Your task to perform on an android device: choose inbox layout in the gmail app Image 0: 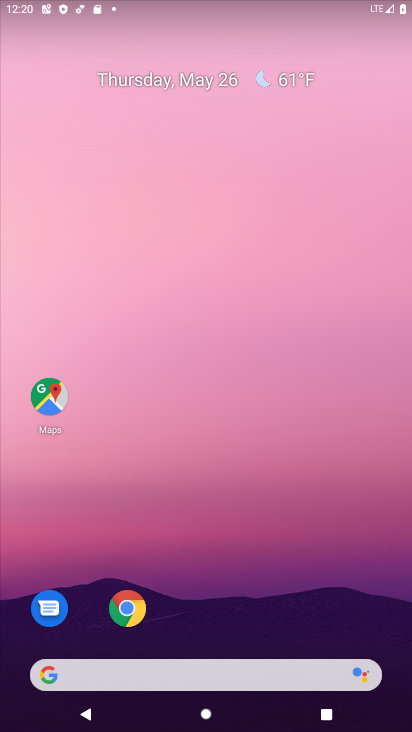
Step 0: drag from (365, 603) to (313, 88)
Your task to perform on an android device: choose inbox layout in the gmail app Image 1: 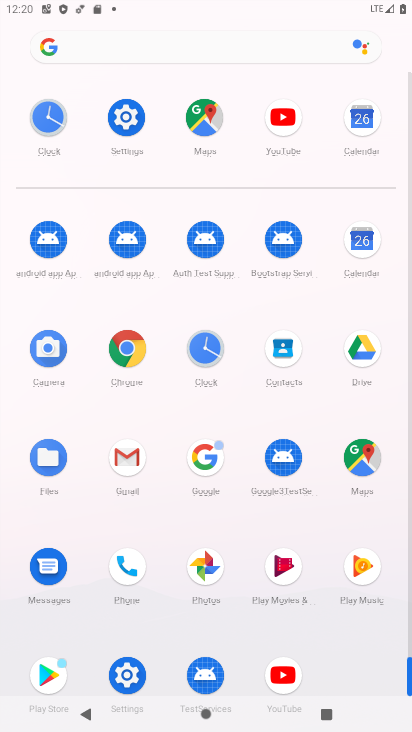
Step 1: click (123, 457)
Your task to perform on an android device: choose inbox layout in the gmail app Image 2: 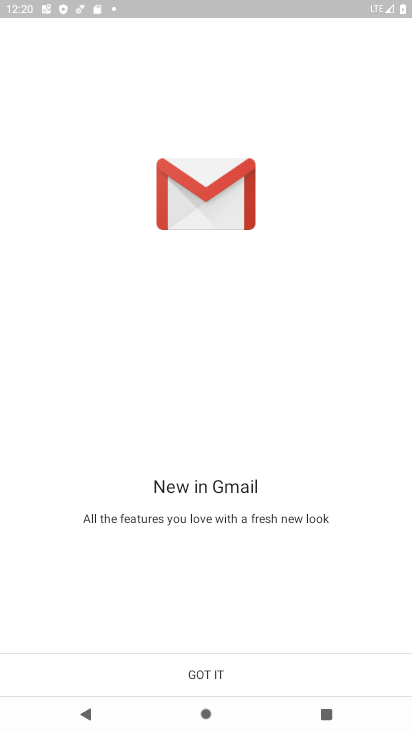
Step 2: click (213, 665)
Your task to perform on an android device: choose inbox layout in the gmail app Image 3: 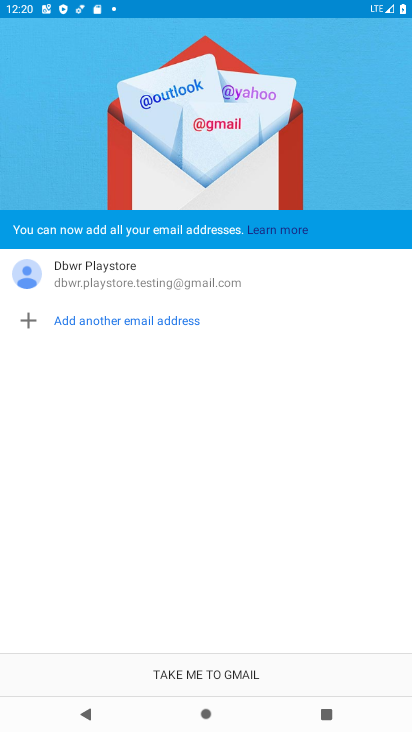
Step 3: click (220, 671)
Your task to perform on an android device: choose inbox layout in the gmail app Image 4: 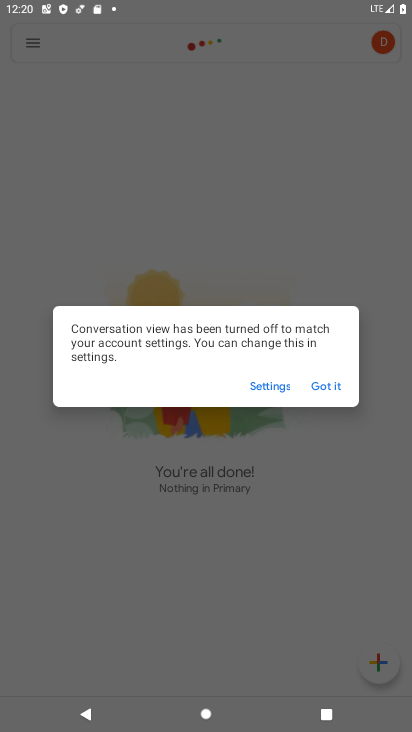
Step 4: click (327, 385)
Your task to perform on an android device: choose inbox layout in the gmail app Image 5: 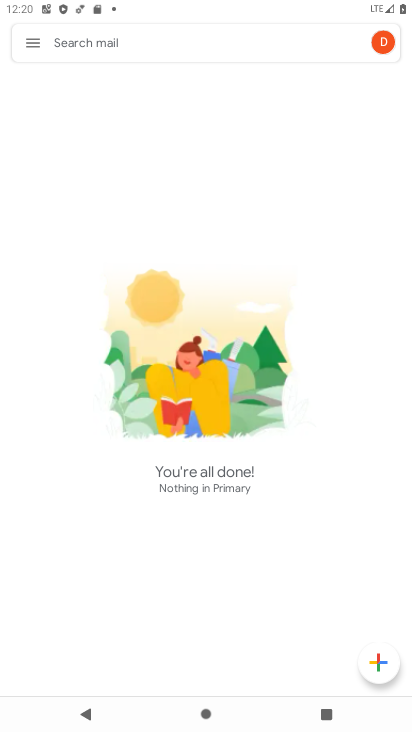
Step 5: click (33, 42)
Your task to perform on an android device: choose inbox layout in the gmail app Image 6: 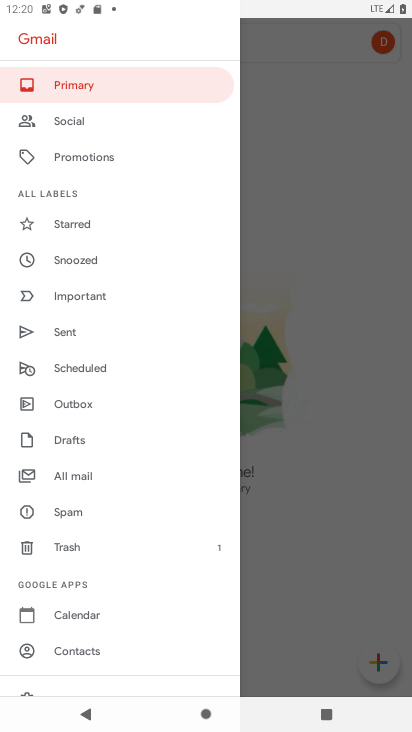
Step 6: drag from (117, 611) to (137, 242)
Your task to perform on an android device: choose inbox layout in the gmail app Image 7: 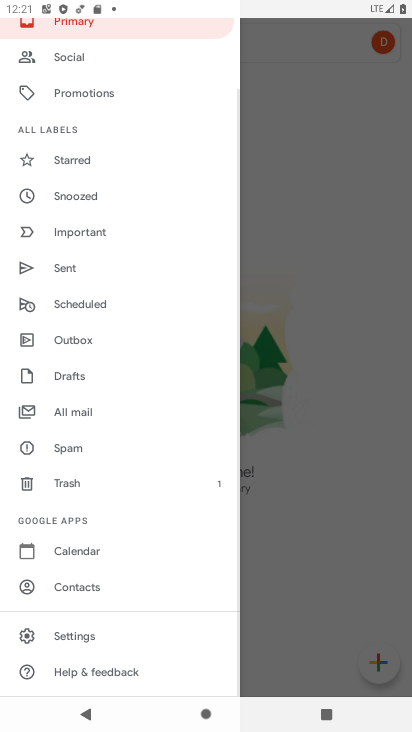
Step 7: click (74, 629)
Your task to perform on an android device: choose inbox layout in the gmail app Image 8: 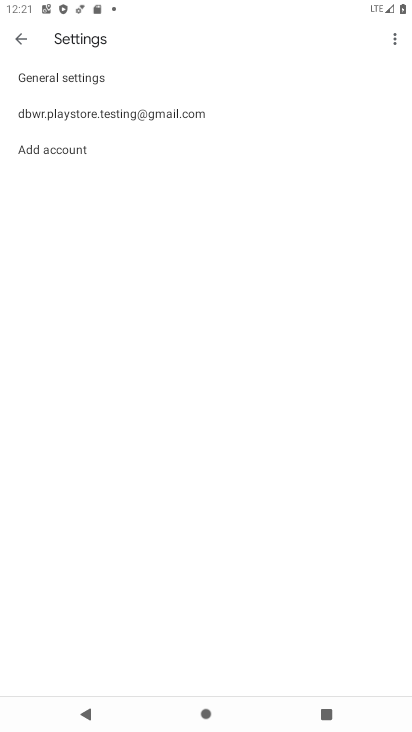
Step 8: click (122, 114)
Your task to perform on an android device: choose inbox layout in the gmail app Image 9: 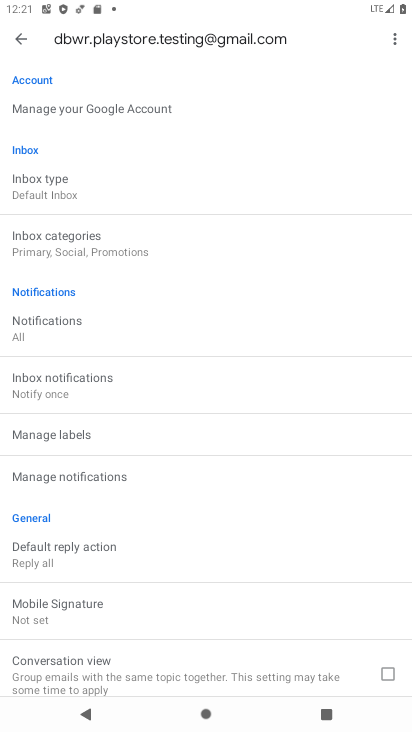
Step 9: click (31, 182)
Your task to perform on an android device: choose inbox layout in the gmail app Image 10: 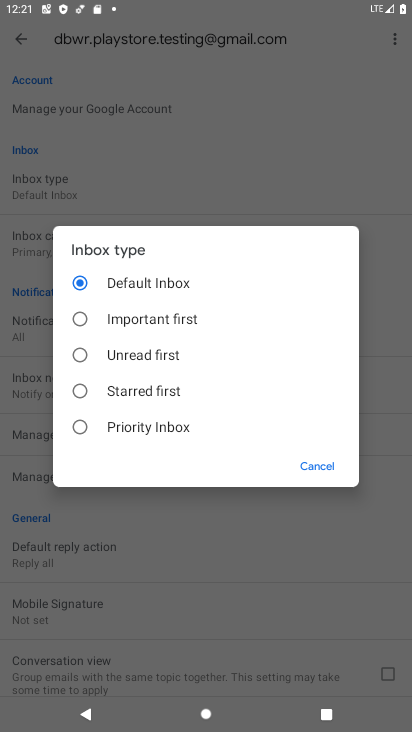
Step 10: click (75, 314)
Your task to perform on an android device: choose inbox layout in the gmail app Image 11: 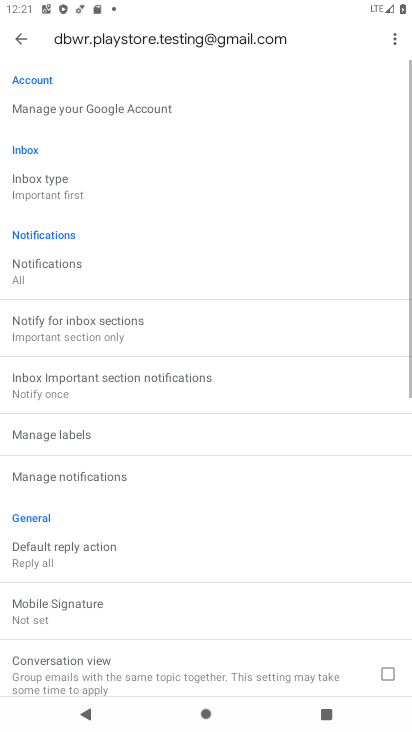
Step 11: task complete